Your task to perform on an android device: toggle notifications settings in the gmail app Image 0: 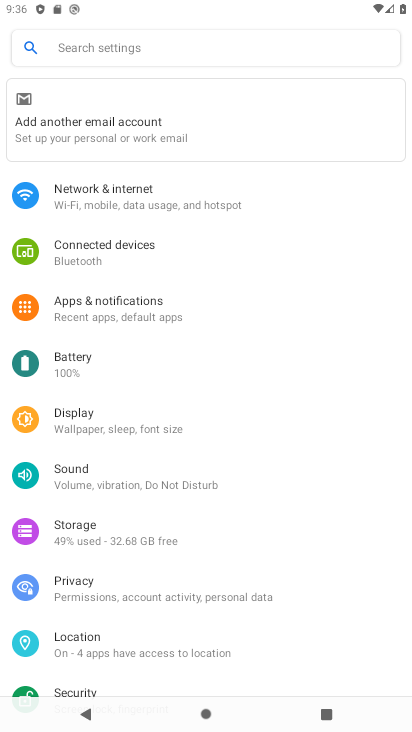
Step 0: press home button
Your task to perform on an android device: toggle notifications settings in the gmail app Image 1: 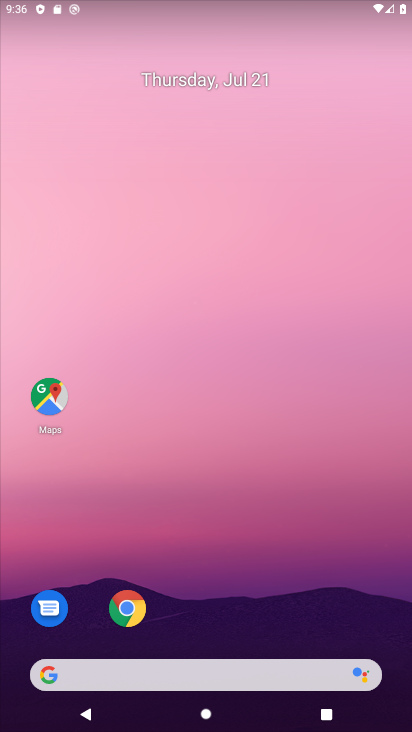
Step 1: drag from (204, 678) to (205, 195)
Your task to perform on an android device: toggle notifications settings in the gmail app Image 2: 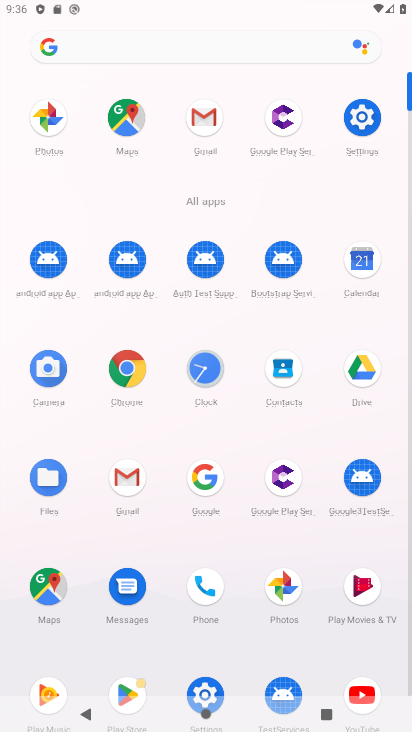
Step 2: click (128, 488)
Your task to perform on an android device: toggle notifications settings in the gmail app Image 3: 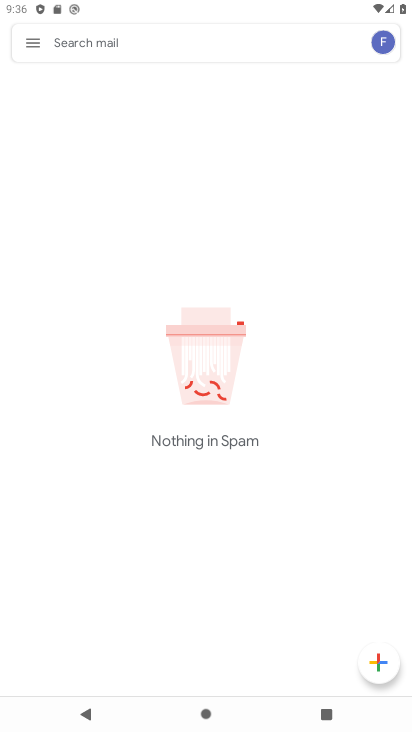
Step 3: click (33, 40)
Your task to perform on an android device: toggle notifications settings in the gmail app Image 4: 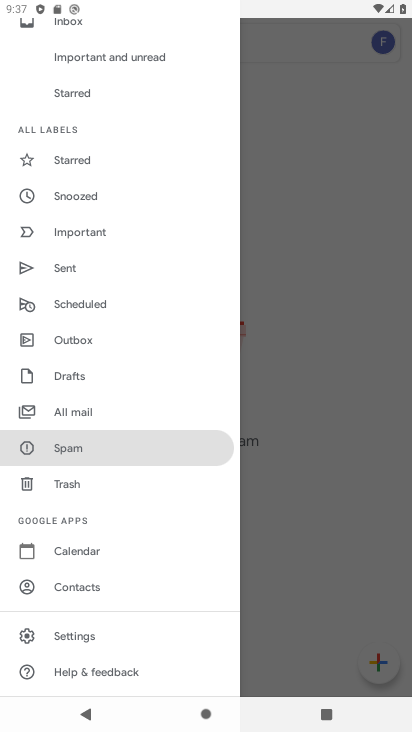
Step 4: click (104, 631)
Your task to perform on an android device: toggle notifications settings in the gmail app Image 5: 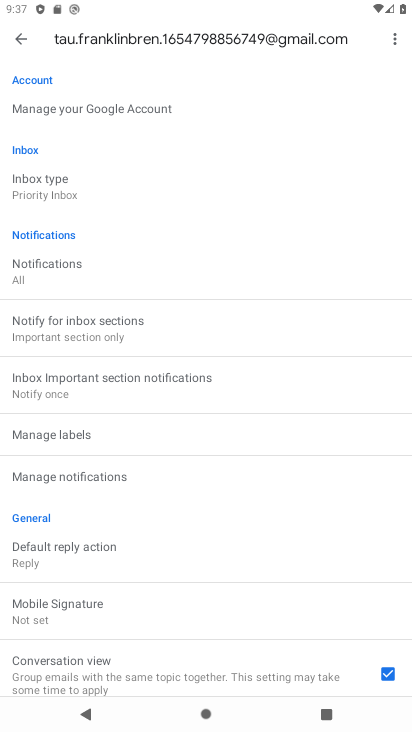
Step 5: click (73, 475)
Your task to perform on an android device: toggle notifications settings in the gmail app Image 6: 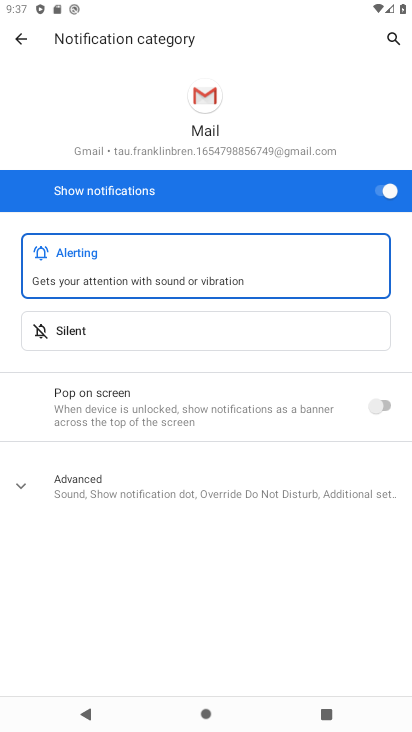
Step 6: click (376, 185)
Your task to perform on an android device: toggle notifications settings in the gmail app Image 7: 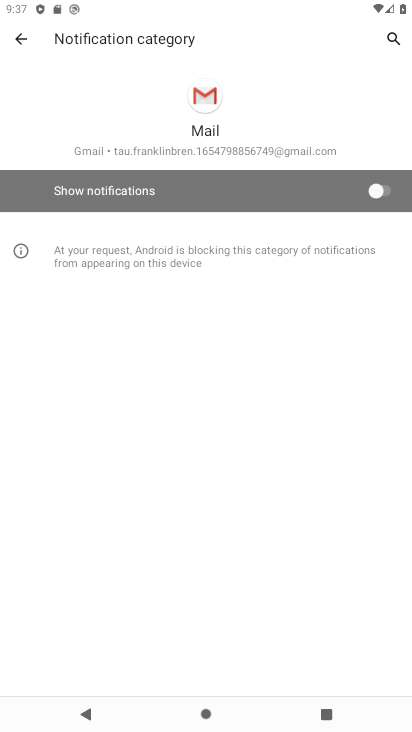
Step 7: task complete